Your task to perform on an android device: change notifications settings Image 0: 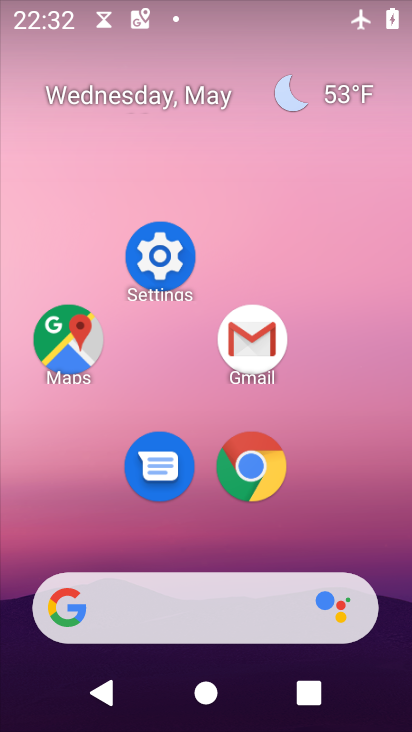
Step 0: drag from (200, 512) to (206, 133)
Your task to perform on an android device: change notifications settings Image 1: 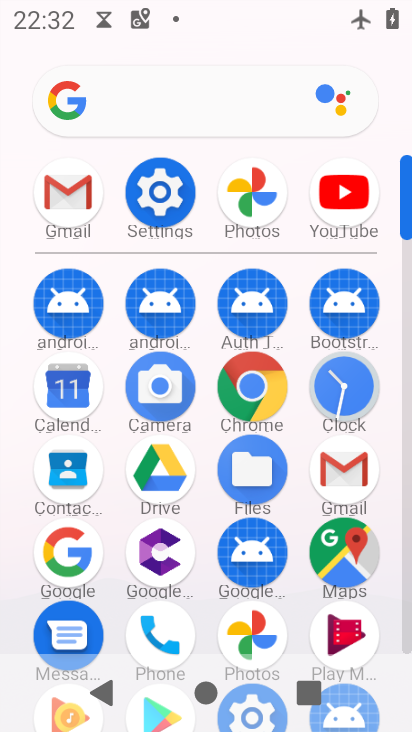
Step 1: click (168, 191)
Your task to perform on an android device: change notifications settings Image 2: 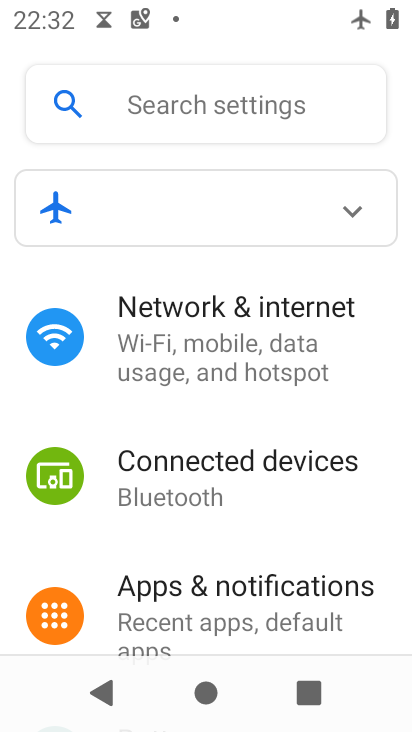
Step 2: click (240, 620)
Your task to perform on an android device: change notifications settings Image 3: 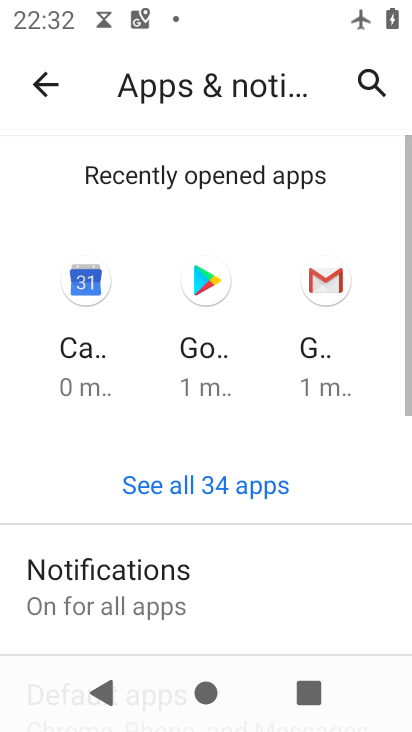
Step 3: click (166, 601)
Your task to perform on an android device: change notifications settings Image 4: 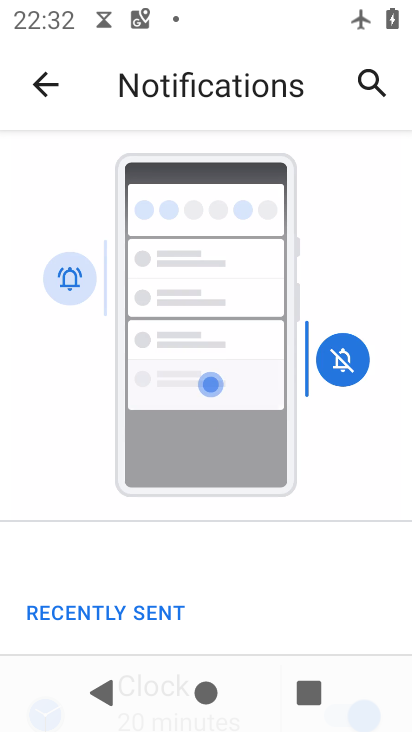
Step 4: drag from (319, 555) to (351, 206)
Your task to perform on an android device: change notifications settings Image 5: 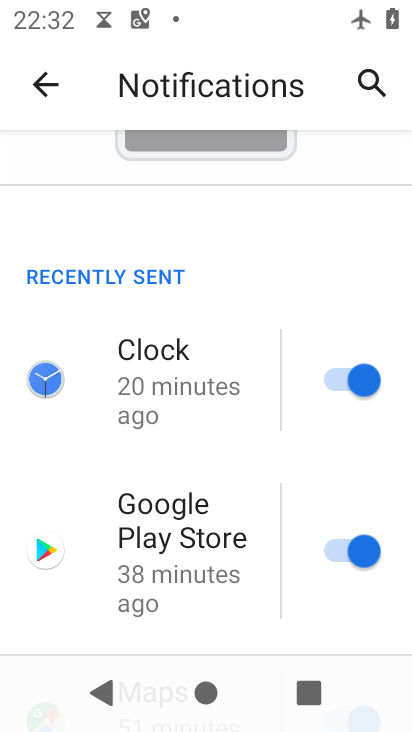
Step 5: click (345, 373)
Your task to perform on an android device: change notifications settings Image 6: 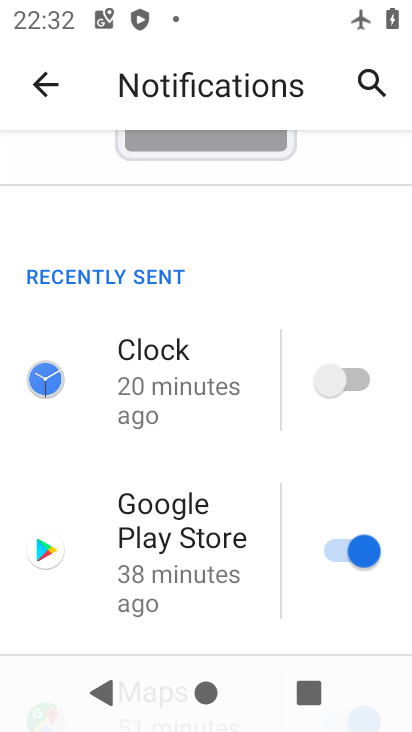
Step 6: task complete